Your task to perform on an android device: Open Youtube and go to "Your channel" Image 0: 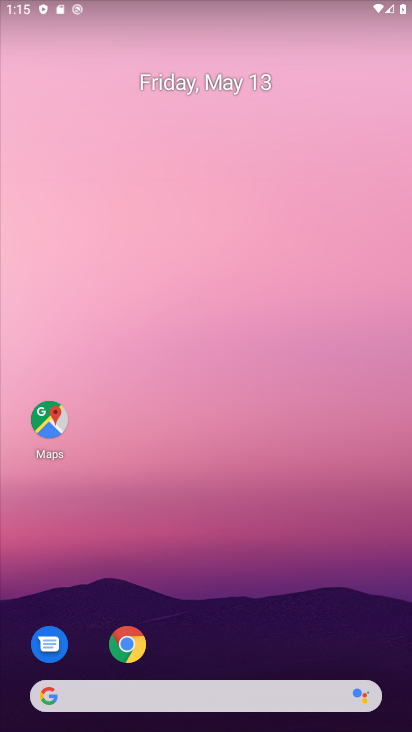
Step 0: drag from (272, 634) to (307, 173)
Your task to perform on an android device: Open Youtube and go to "Your channel" Image 1: 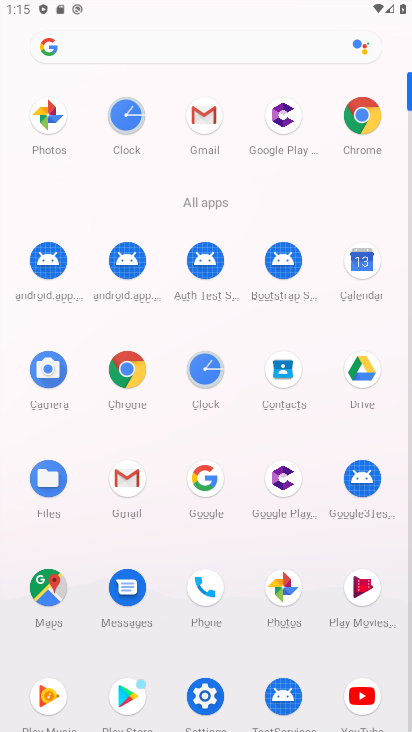
Step 1: click (367, 694)
Your task to perform on an android device: Open Youtube and go to "Your channel" Image 2: 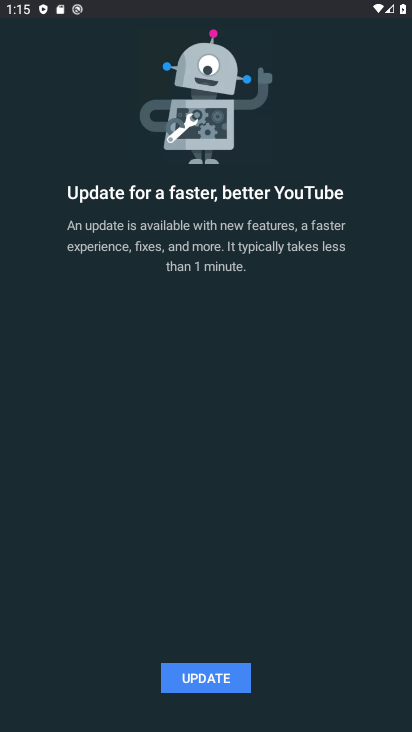
Step 2: click (197, 683)
Your task to perform on an android device: Open Youtube and go to "Your channel" Image 3: 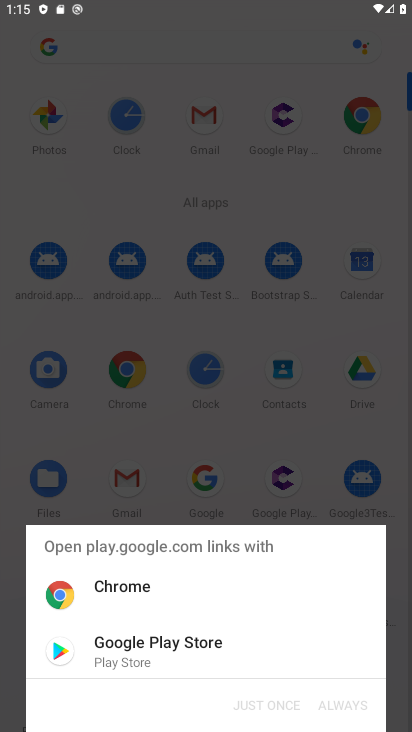
Step 3: click (135, 655)
Your task to perform on an android device: Open Youtube and go to "Your channel" Image 4: 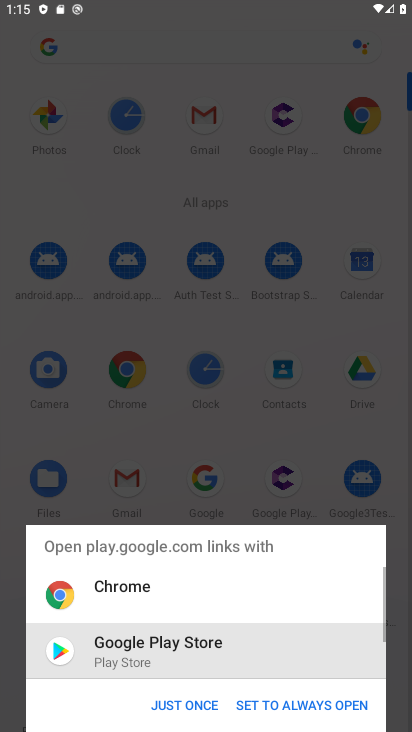
Step 4: click (178, 701)
Your task to perform on an android device: Open Youtube and go to "Your channel" Image 5: 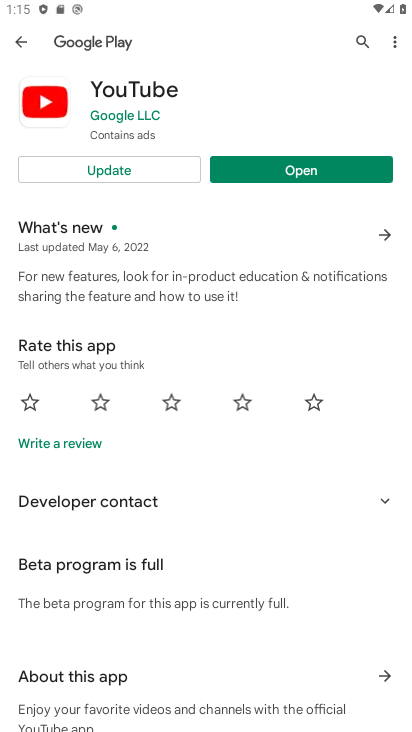
Step 5: click (146, 170)
Your task to perform on an android device: Open Youtube and go to "Your channel" Image 6: 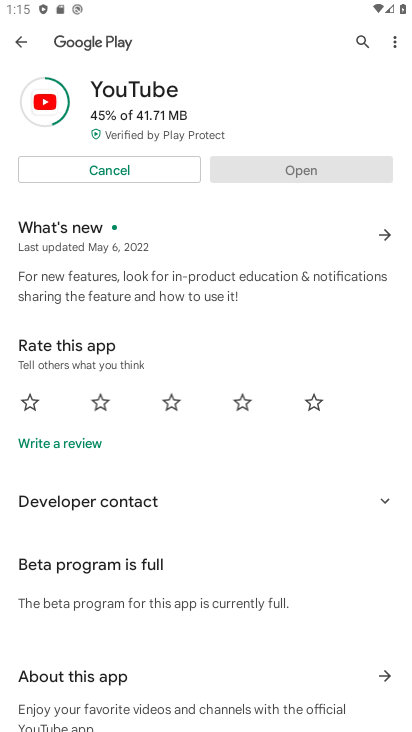
Step 6: task complete